Your task to perform on an android device: find photos in the google photos app Image 0: 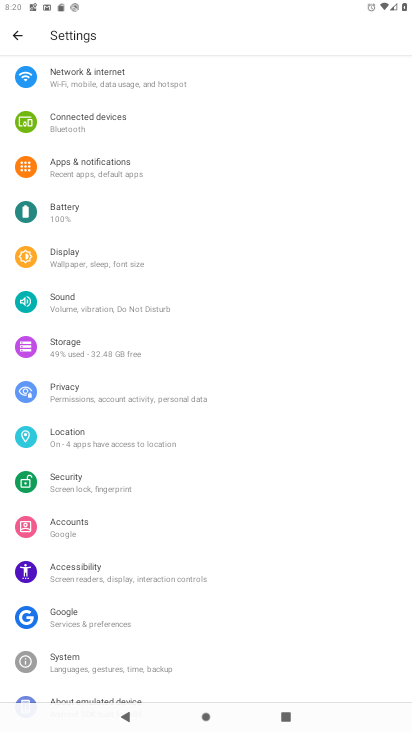
Step 0: press home button
Your task to perform on an android device: find photos in the google photos app Image 1: 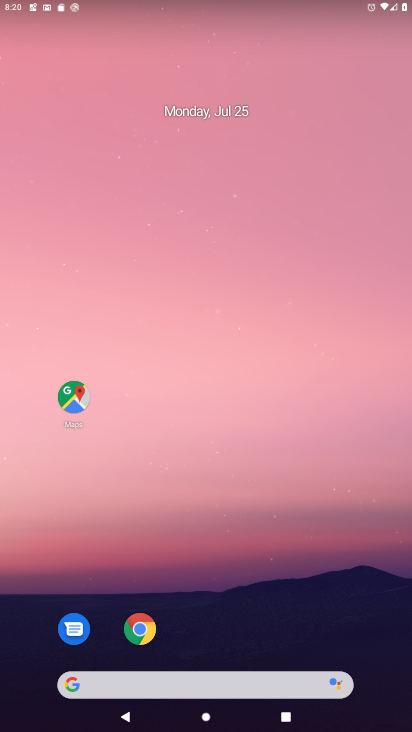
Step 1: drag from (183, 682) to (329, 134)
Your task to perform on an android device: find photos in the google photos app Image 2: 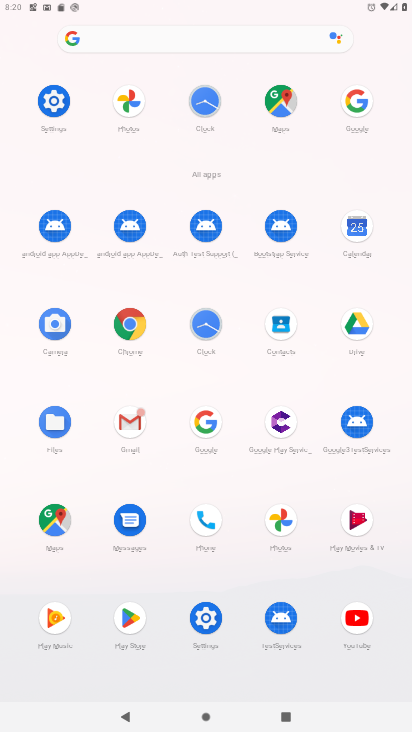
Step 2: click (279, 515)
Your task to perform on an android device: find photos in the google photos app Image 3: 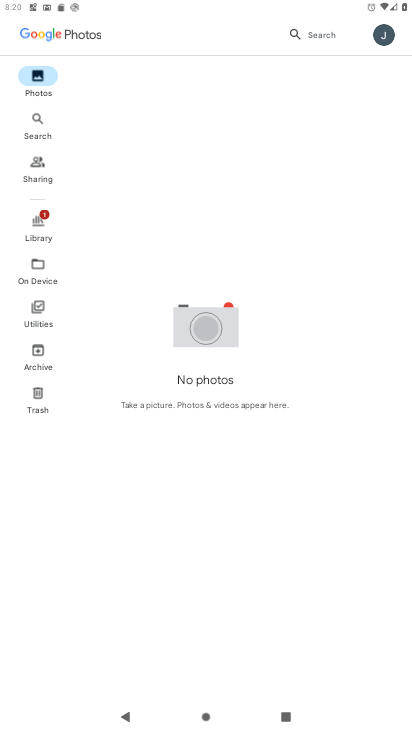
Step 3: click (33, 117)
Your task to perform on an android device: find photos in the google photos app Image 4: 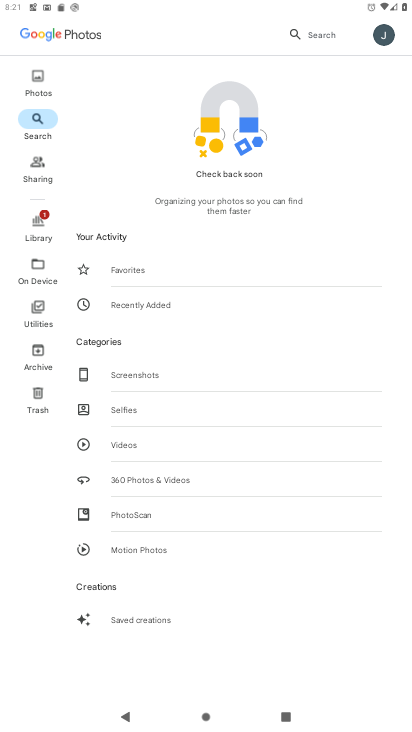
Step 4: click (36, 84)
Your task to perform on an android device: find photos in the google photos app Image 5: 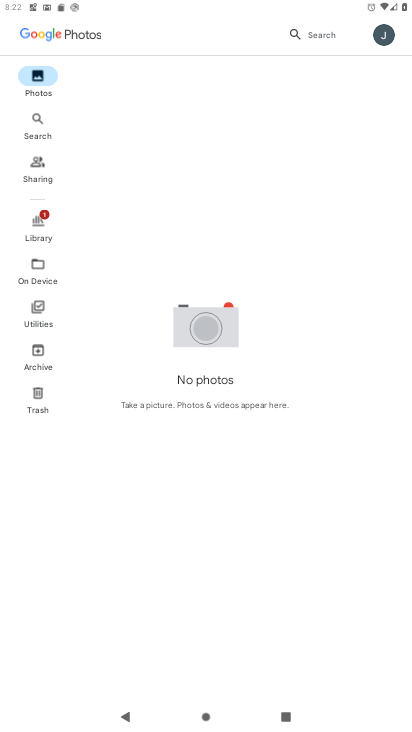
Step 5: task complete